Your task to perform on an android device: add a contact Image 0: 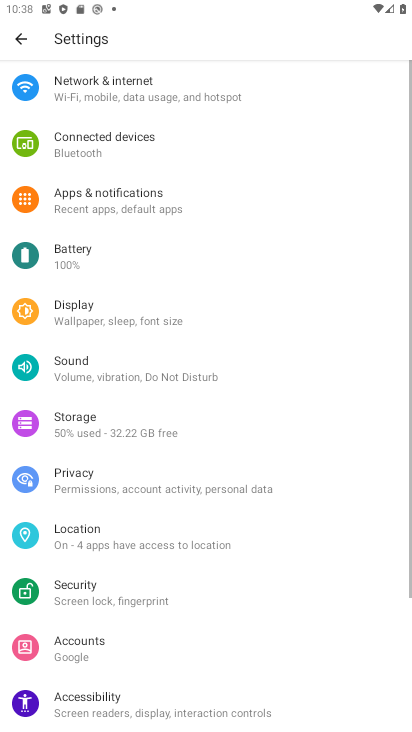
Step 0: press home button
Your task to perform on an android device: add a contact Image 1: 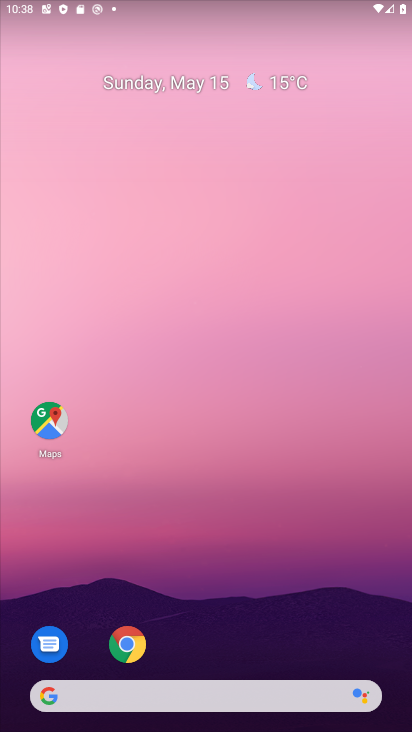
Step 1: drag from (181, 681) to (232, 248)
Your task to perform on an android device: add a contact Image 2: 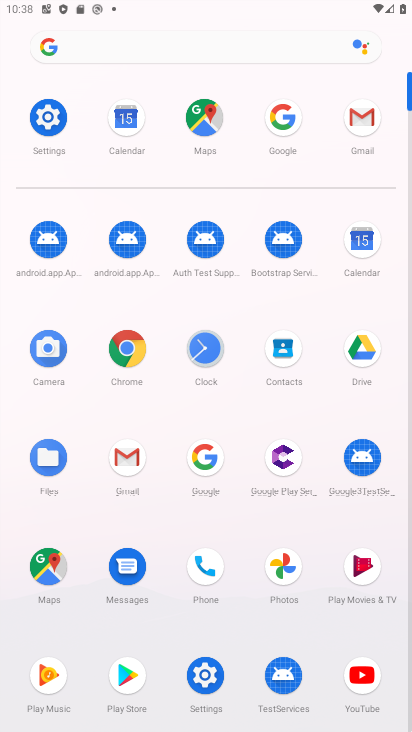
Step 2: click (283, 349)
Your task to perform on an android device: add a contact Image 3: 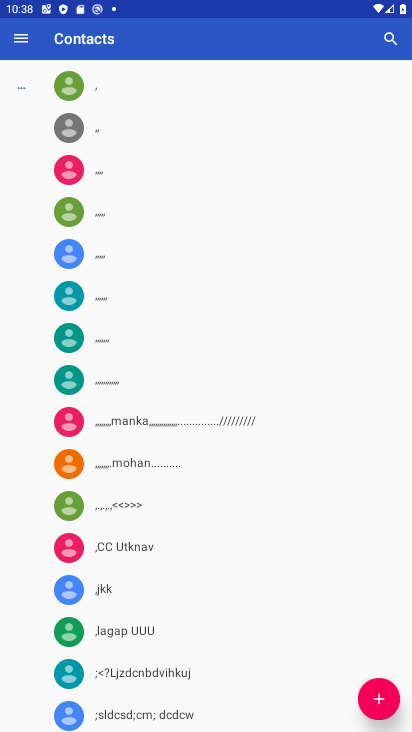
Step 3: click (379, 690)
Your task to perform on an android device: add a contact Image 4: 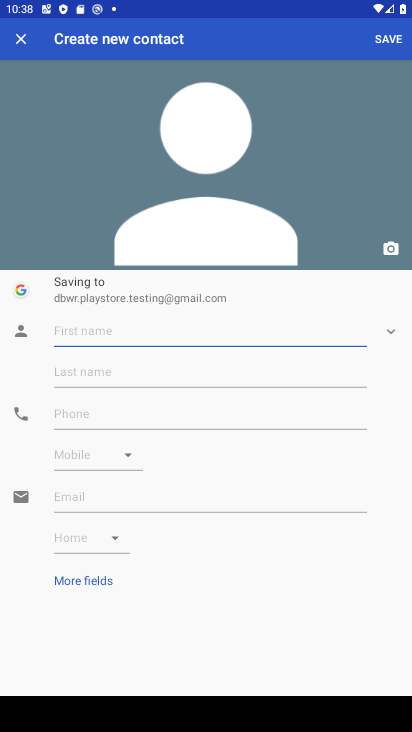
Step 4: type "juli"
Your task to perform on an android device: add a contact Image 5: 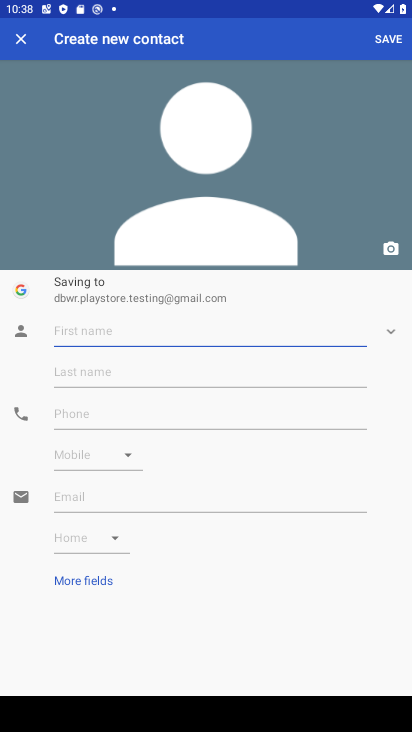
Step 5: click (117, 379)
Your task to perform on an android device: add a contact Image 6: 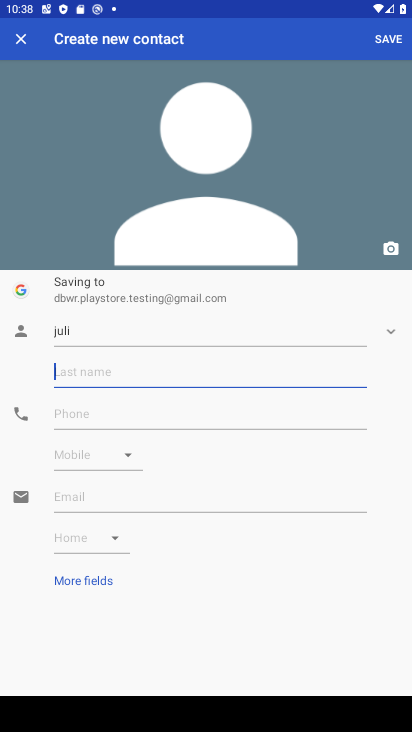
Step 6: type "tastra"
Your task to perform on an android device: add a contact Image 7: 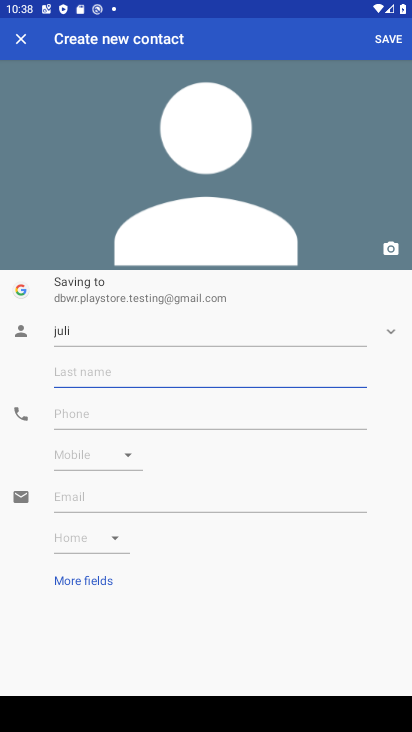
Step 7: click (109, 423)
Your task to perform on an android device: add a contact Image 8: 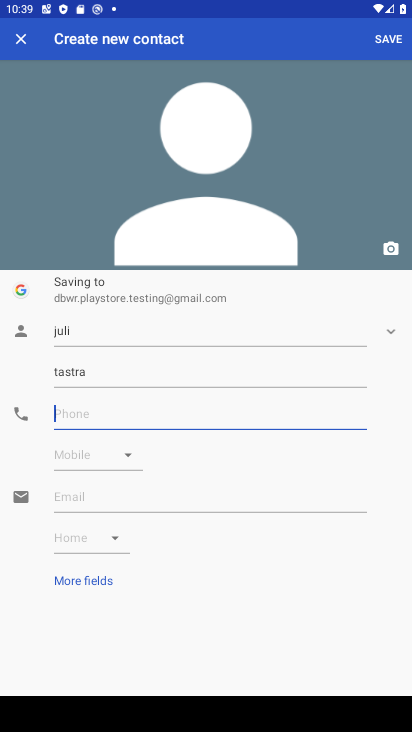
Step 8: type "9807989807"
Your task to perform on an android device: add a contact Image 9: 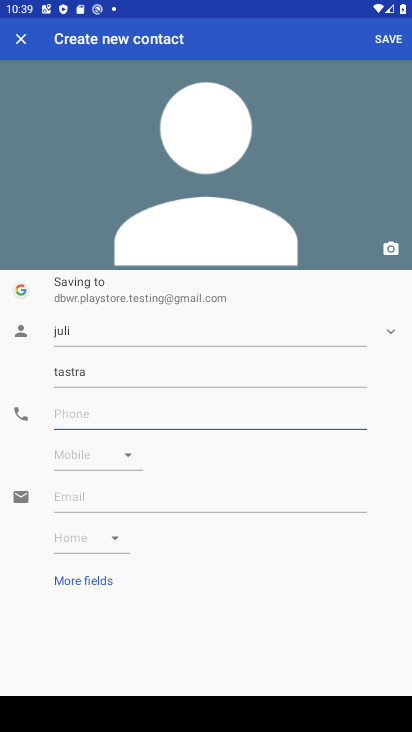
Step 9: click (81, 455)
Your task to perform on an android device: add a contact Image 10: 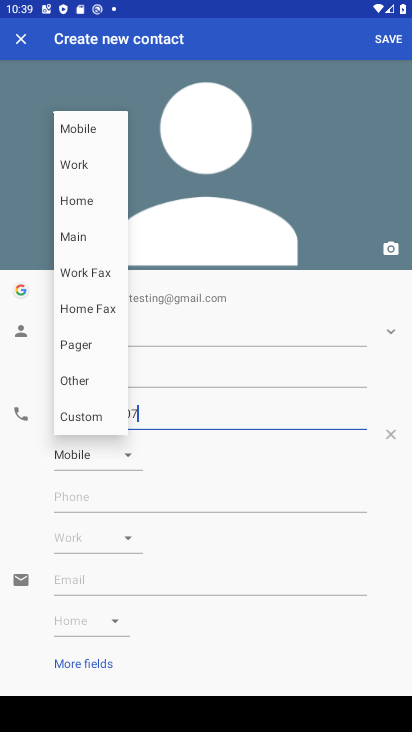
Step 10: click (83, 132)
Your task to perform on an android device: add a contact Image 11: 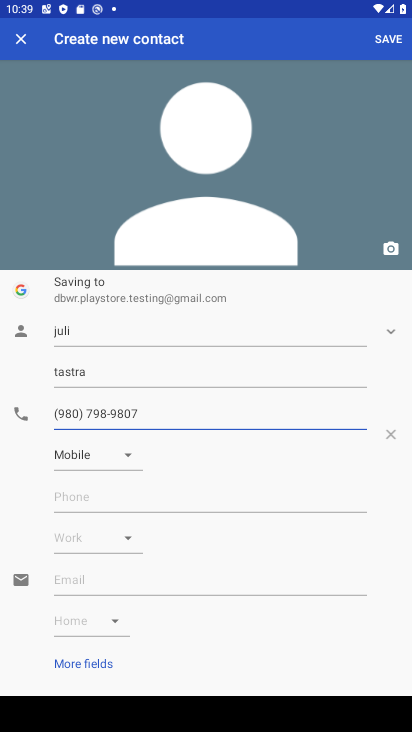
Step 11: click (381, 36)
Your task to perform on an android device: add a contact Image 12: 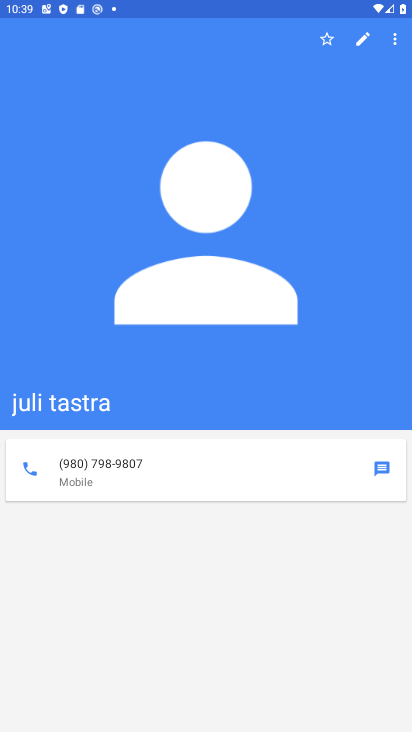
Step 12: task complete